Your task to perform on an android device: all mails in gmail Image 0: 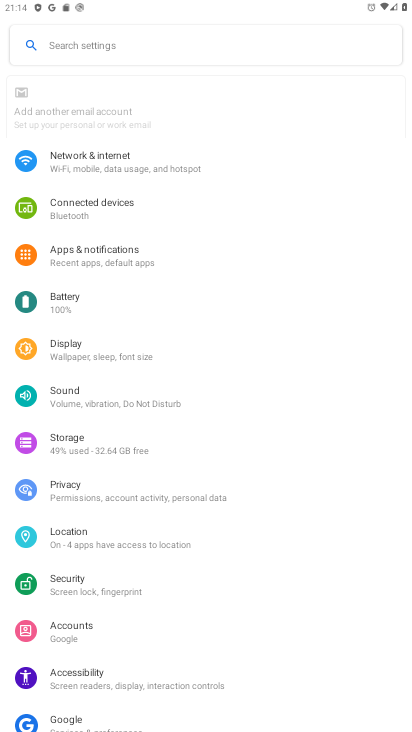
Step 0: press home button
Your task to perform on an android device: all mails in gmail Image 1: 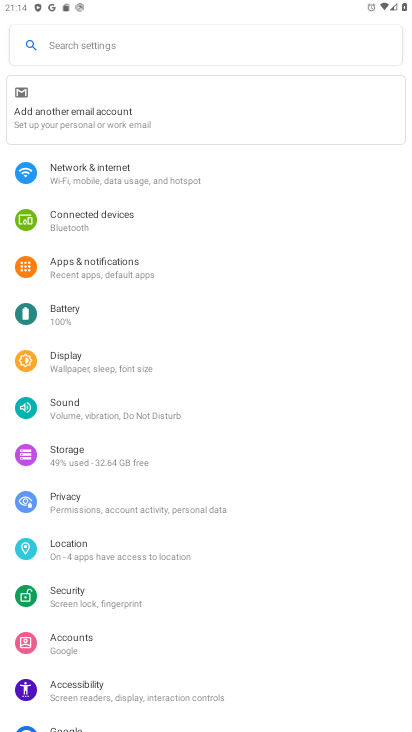
Step 1: press home button
Your task to perform on an android device: all mails in gmail Image 2: 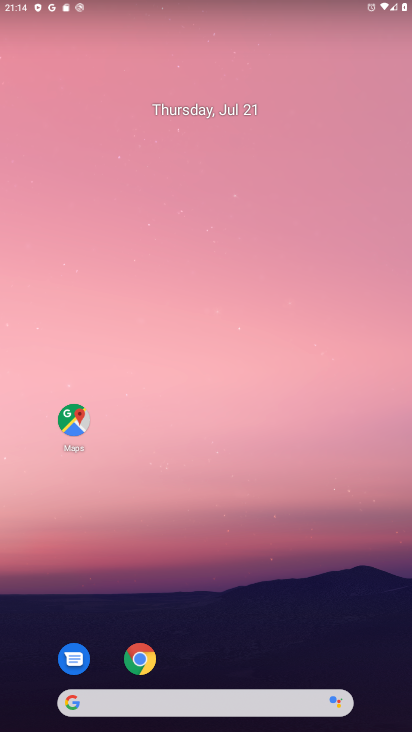
Step 2: drag from (289, 626) to (340, 62)
Your task to perform on an android device: all mails in gmail Image 3: 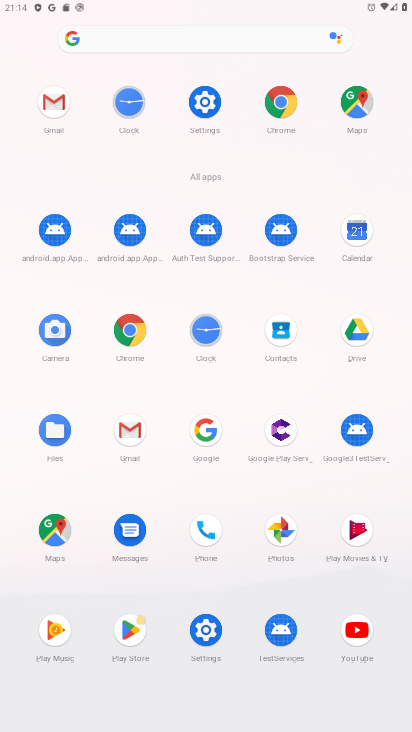
Step 3: click (127, 443)
Your task to perform on an android device: all mails in gmail Image 4: 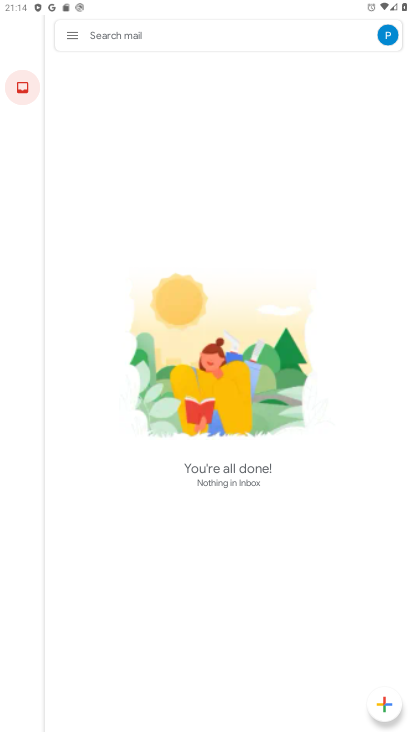
Step 4: click (71, 34)
Your task to perform on an android device: all mails in gmail Image 5: 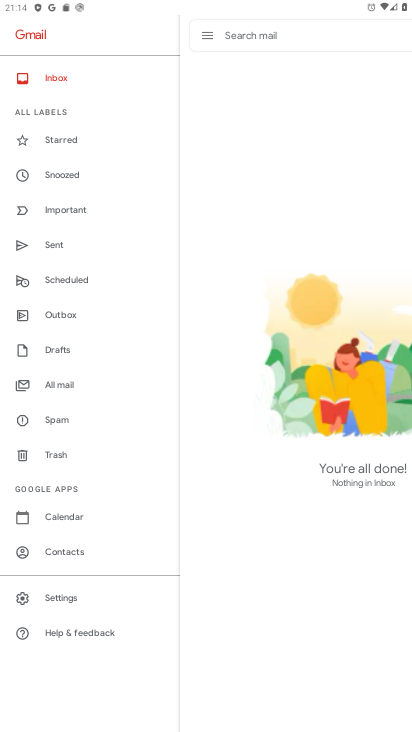
Step 5: click (56, 388)
Your task to perform on an android device: all mails in gmail Image 6: 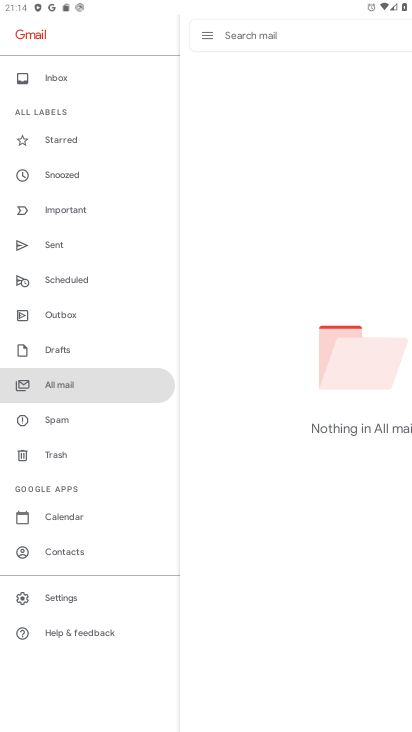
Step 6: task complete